Your task to perform on an android device: Go to Yahoo.com Image 0: 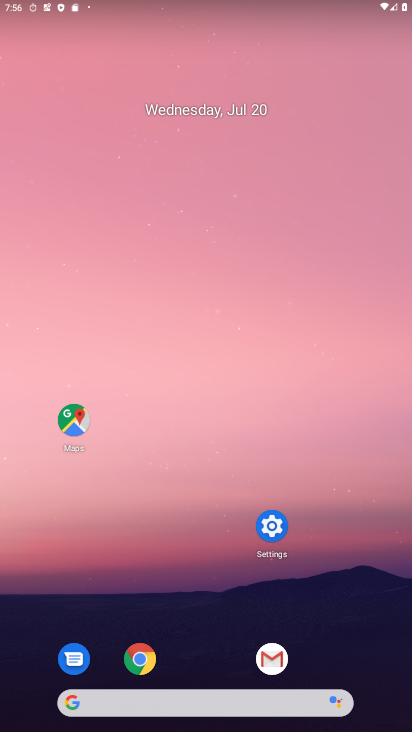
Step 0: click (139, 656)
Your task to perform on an android device: Go to Yahoo.com Image 1: 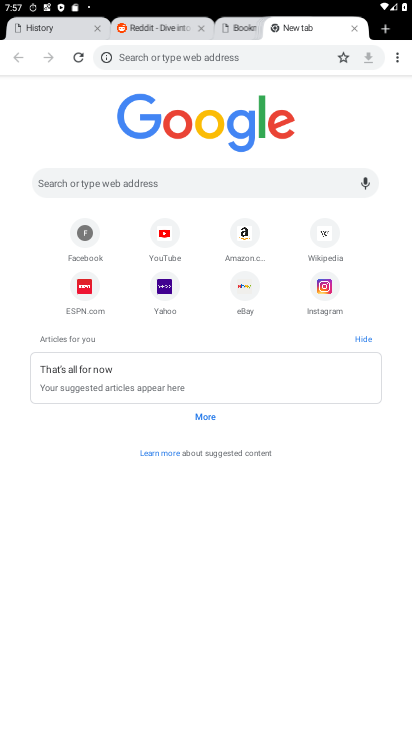
Step 1: click (160, 291)
Your task to perform on an android device: Go to Yahoo.com Image 2: 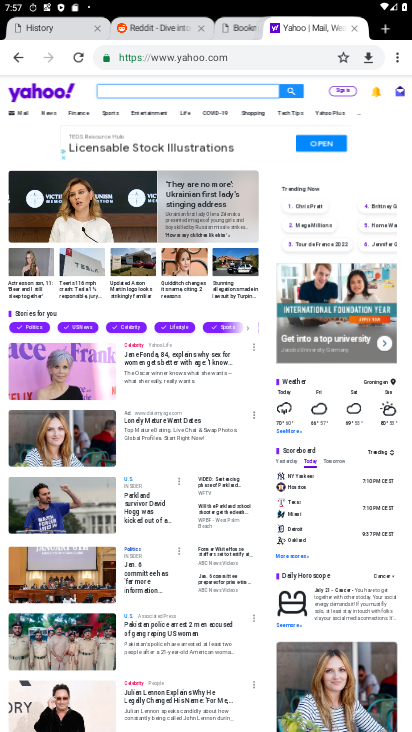
Step 2: task complete